Your task to perform on an android device: check google app version Image 0: 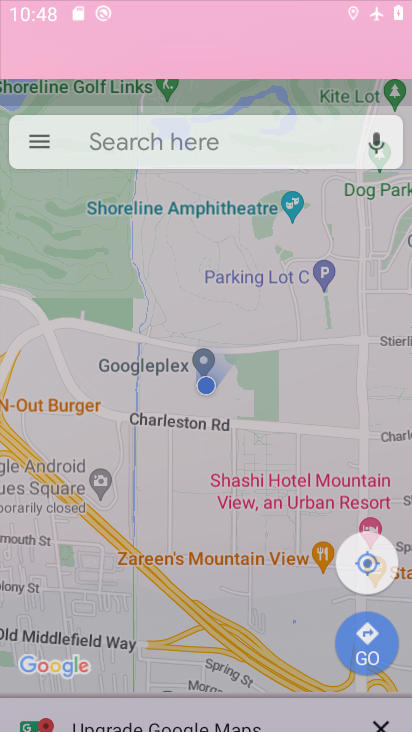
Step 0: click (79, 87)
Your task to perform on an android device: check google app version Image 1: 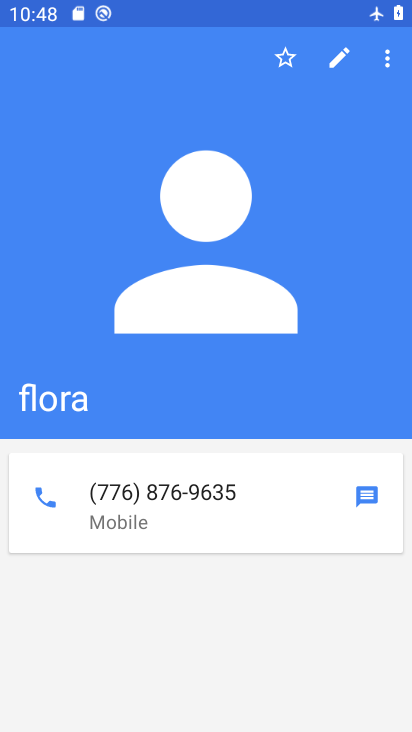
Step 1: press home button
Your task to perform on an android device: check google app version Image 2: 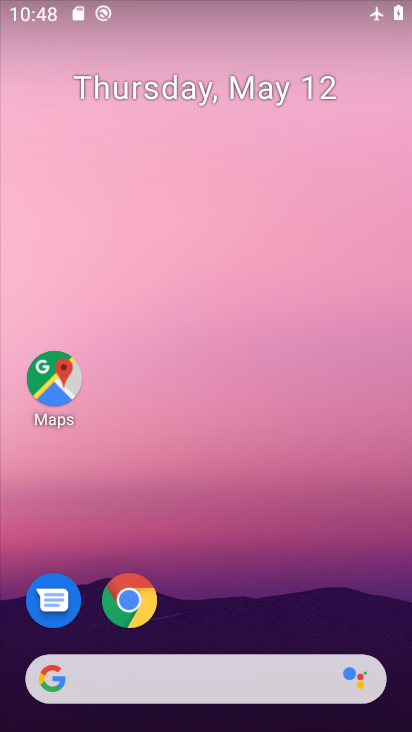
Step 2: drag from (188, 607) to (84, 67)
Your task to perform on an android device: check google app version Image 3: 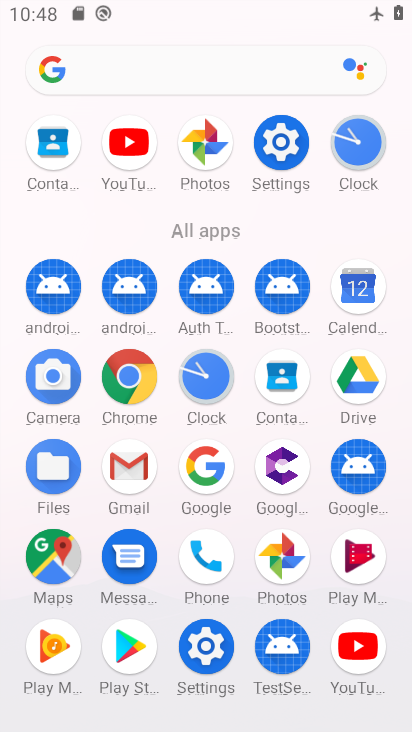
Step 3: click (207, 465)
Your task to perform on an android device: check google app version Image 4: 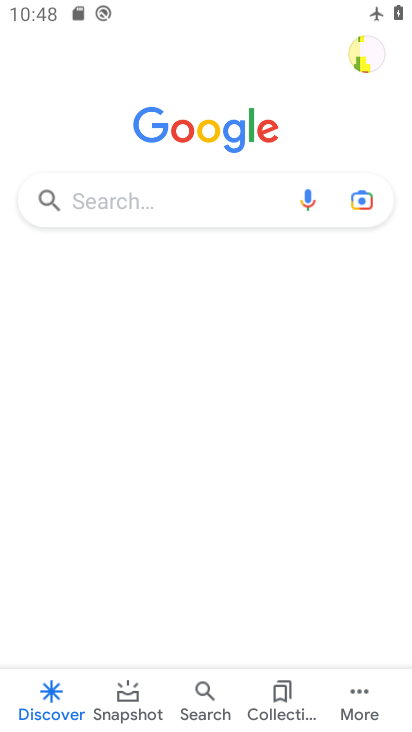
Step 4: click (335, 698)
Your task to perform on an android device: check google app version Image 5: 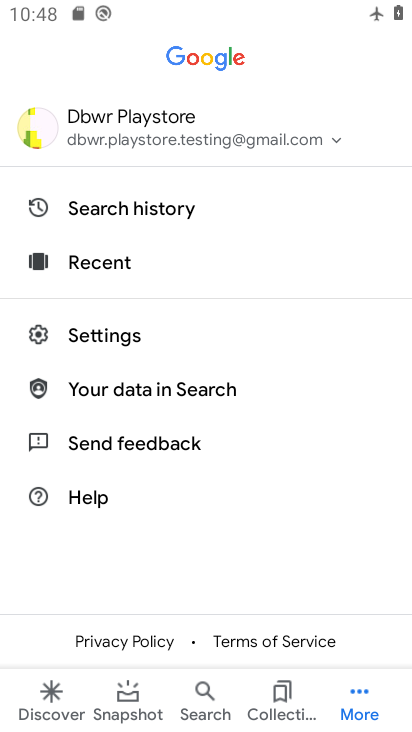
Step 5: click (89, 335)
Your task to perform on an android device: check google app version Image 6: 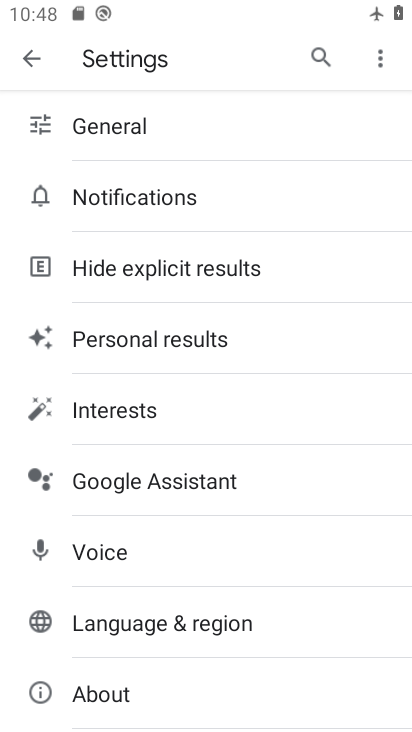
Step 6: click (131, 692)
Your task to perform on an android device: check google app version Image 7: 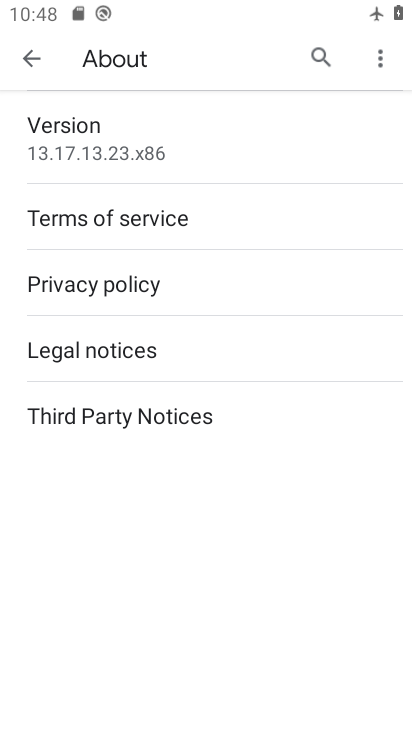
Step 7: task complete